Your task to perform on an android device: Open my contact list Image 0: 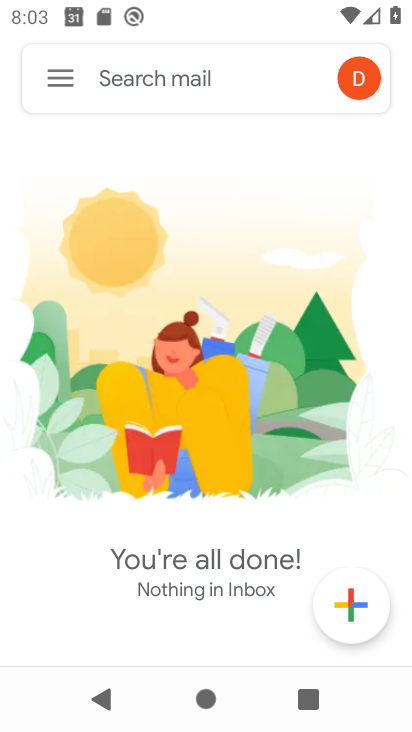
Step 0: press home button
Your task to perform on an android device: Open my contact list Image 1: 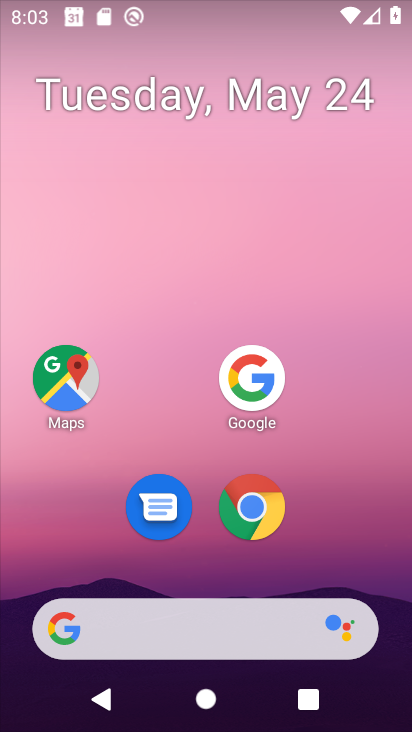
Step 1: drag from (169, 625) to (297, 92)
Your task to perform on an android device: Open my contact list Image 2: 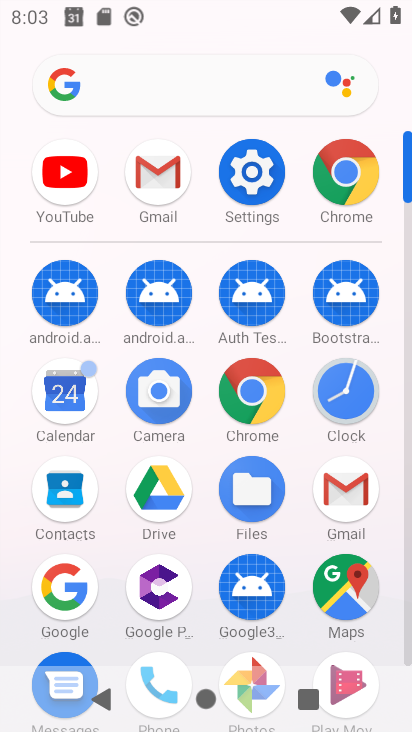
Step 2: click (54, 499)
Your task to perform on an android device: Open my contact list Image 3: 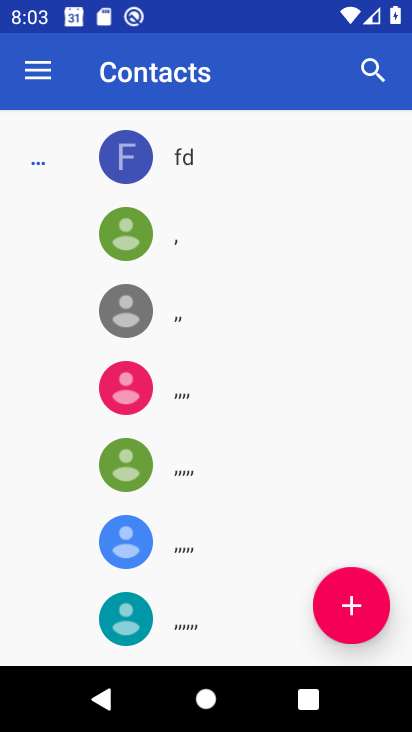
Step 3: task complete